Your task to perform on an android device: find which apps use the phone's location Image 0: 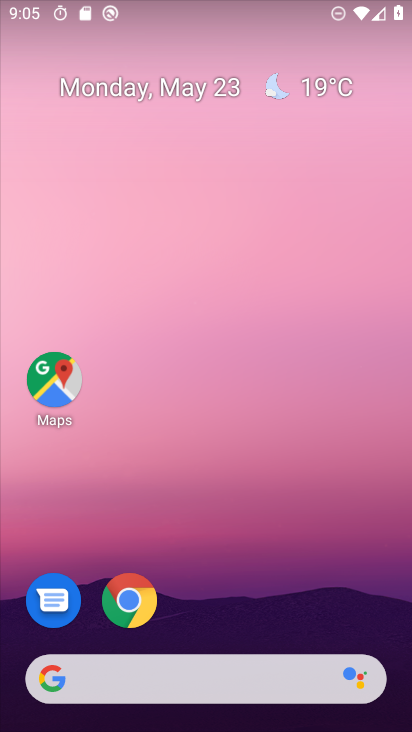
Step 0: task complete